Your task to perform on an android device: Go to CNN.com Image 0: 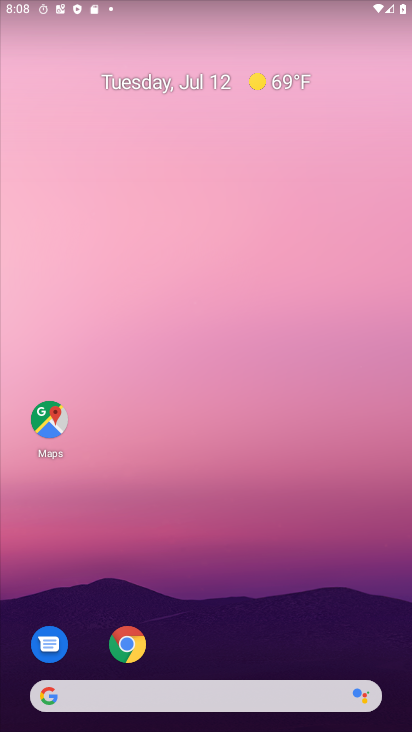
Step 0: drag from (216, 657) to (210, 101)
Your task to perform on an android device: Go to CNN.com Image 1: 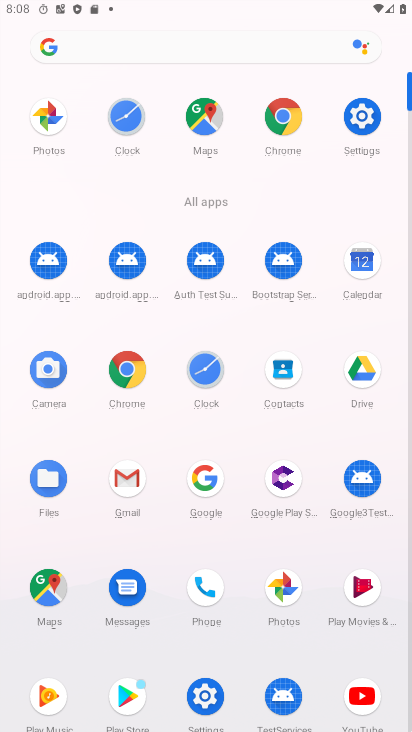
Step 1: click (278, 111)
Your task to perform on an android device: Go to CNN.com Image 2: 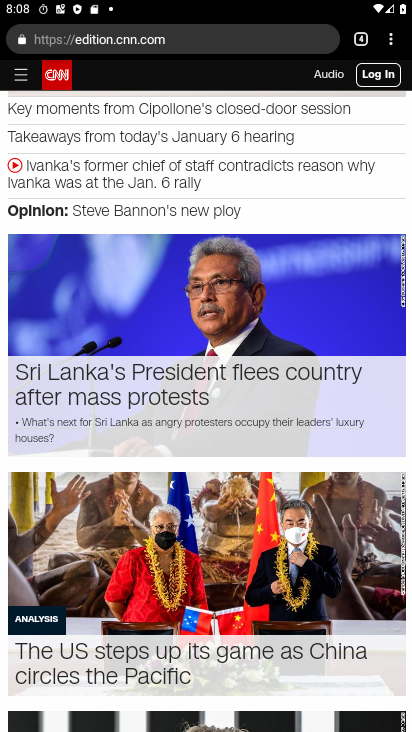
Step 2: task complete